Your task to perform on an android device: What's on my calendar tomorrow? Image 0: 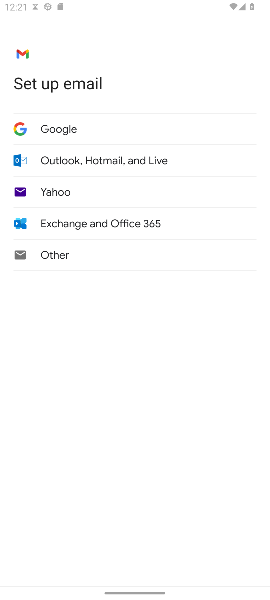
Step 0: press home button
Your task to perform on an android device: What's on my calendar tomorrow? Image 1: 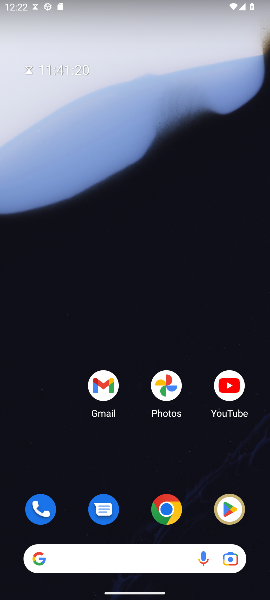
Step 1: drag from (196, 518) to (211, 48)
Your task to perform on an android device: What's on my calendar tomorrow? Image 2: 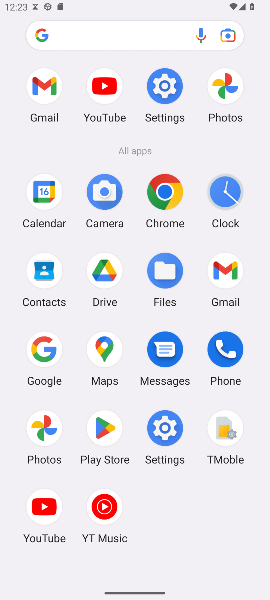
Step 2: click (44, 194)
Your task to perform on an android device: What's on my calendar tomorrow? Image 3: 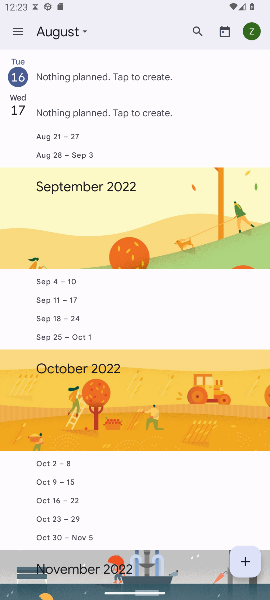
Step 3: click (80, 34)
Your task to perform on an android device: What's on my calendar tomorrow? Image 4: 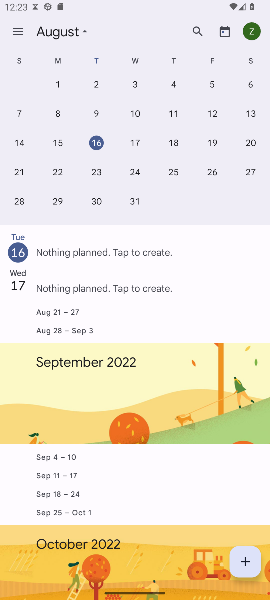
Step 4: click (133, 145)
Your task to perform on an android device: What's on my calendar tomorrow? Image 5: 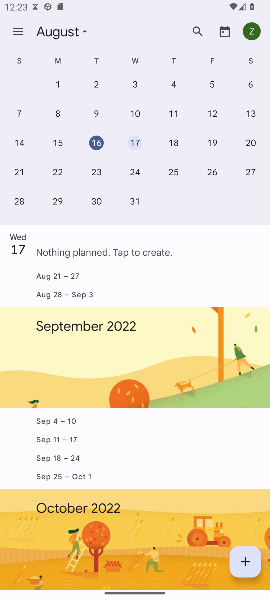
Step 5: task complete